Your task to perform on an android device: toggle pop-ups in chrome Image 0: 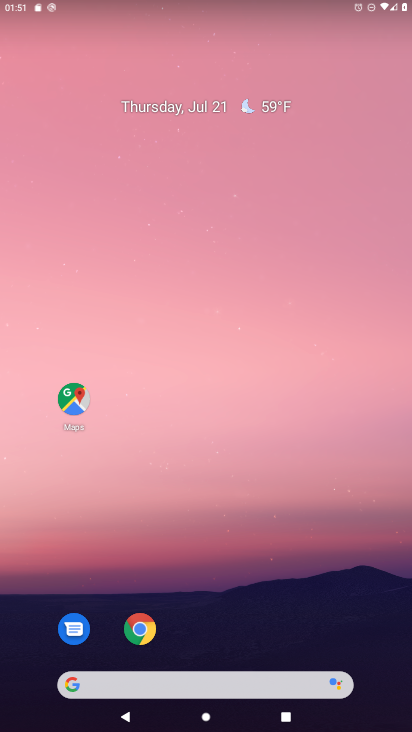
Step 0: click (139, 631)
Your task to perform on an android device: toggle pop-ups in chrome Image 1: 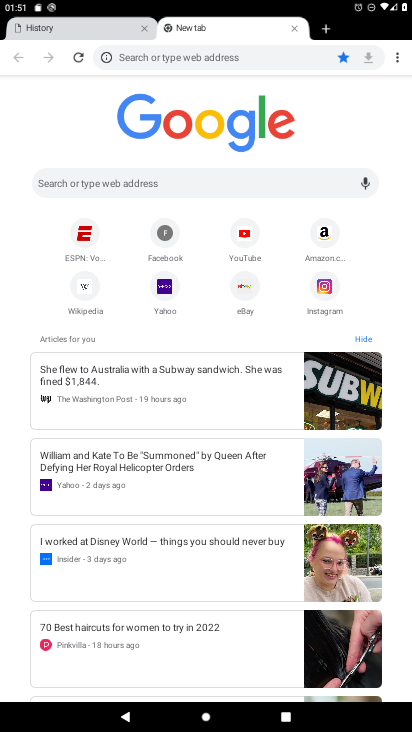
Step 1: click (397, 65)
Your task to perform on an android device: toggle pop-ups in chrome Image 2: 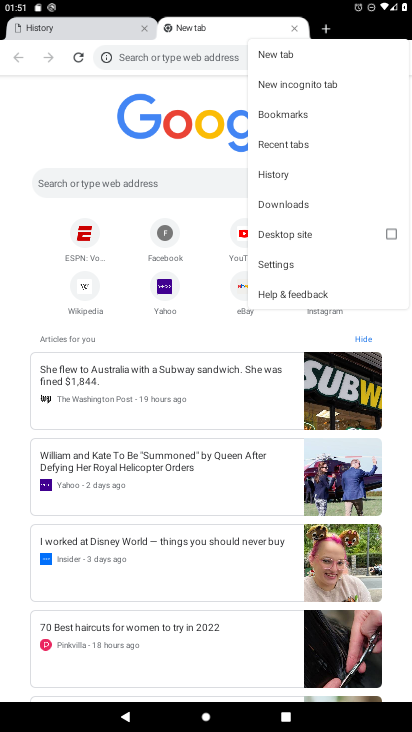
Step 2: click (278, 256)
Your task to perform on an android device: toggle pop-ups in chrome Image 3: 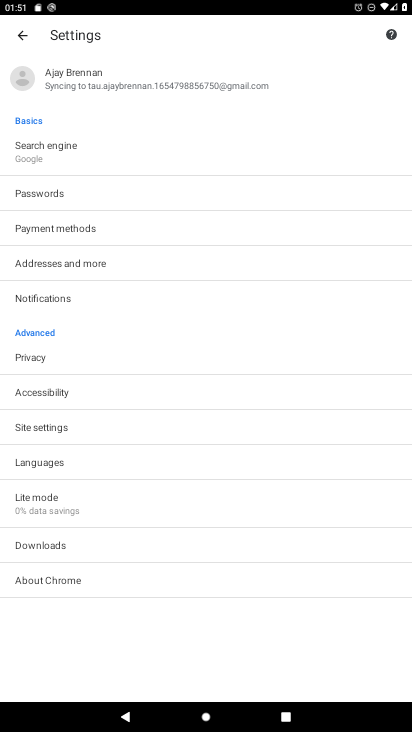
Step 3: click (45, 421)
Your task to perform on an android device: toggle pop-ups in chrome Image 4: 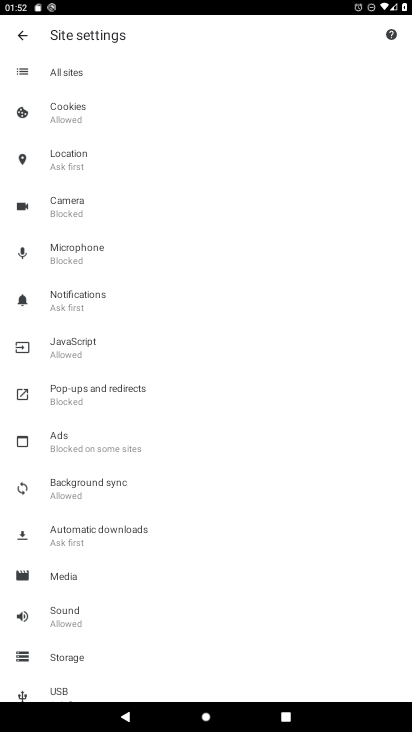
Step 4: click (72, 387)
Your task to perform on an android device: toggle pop-ups in chrome Image 5: 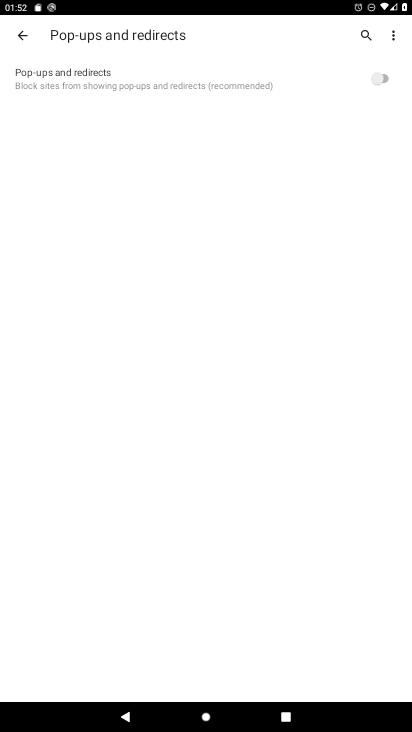
Step 5: click (386, 75)
Your task to perform on an android device: toggle pop-ups in chrome Image 6: 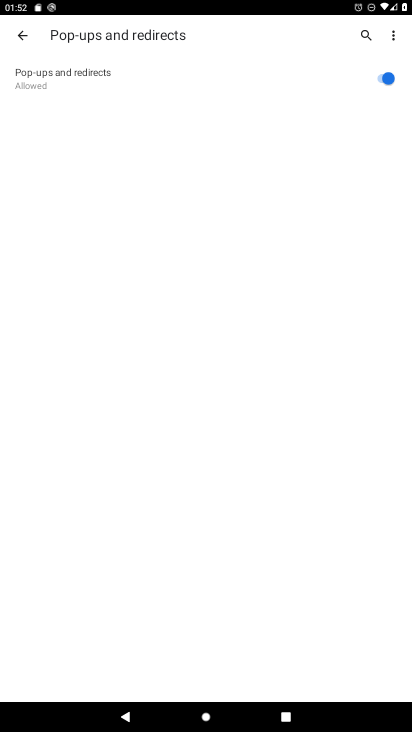
Step 6: task complete